Your task to perform on an android device: Show the shopping cart on costco.com. Search for duracell triple a on costco.com, select the first entry, add it to the cart, then select checkout. Image 0: 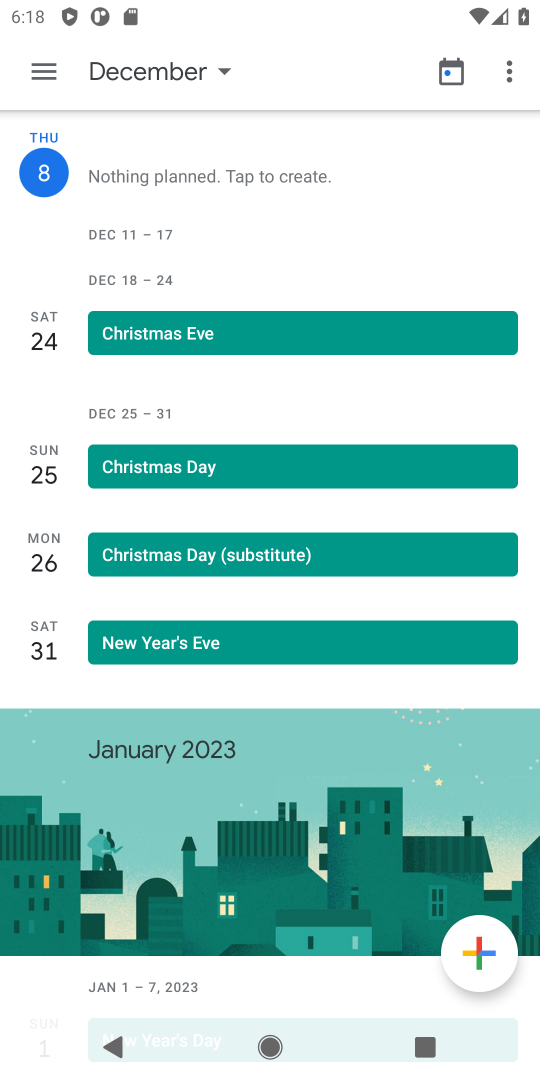
Step 0: press home button
Your task to perform on an android device: Show the shopping cart on costco.com. Search for duracell triple a on costco.com, select the first entry, add it to the cart, then select checkout. Image 1: 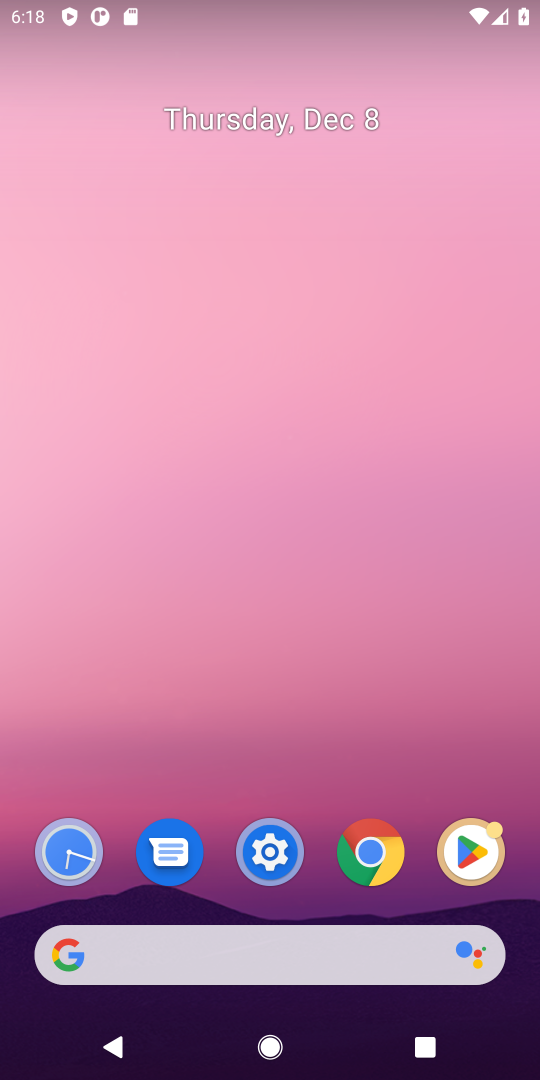
Step 1: click (219, 965)
Your task to perform on an android device: Show the shopping cart on costco.com. Search for duracell triple a on costco.com, select the first entry, add it to the cart, then select checkout. Image 2: 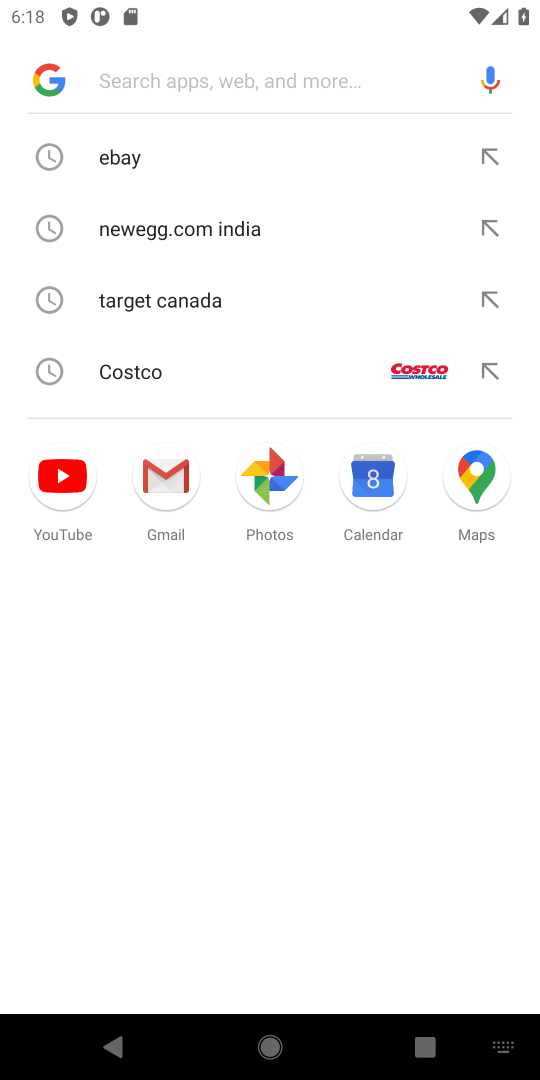
Step 2: type "costco.com"
Your task to perform on an android device: Show the shopping cart on costco.com. Search for duracell triple a on costco.com, select the first entry, add it to the cart, then select checkout. Image 3: 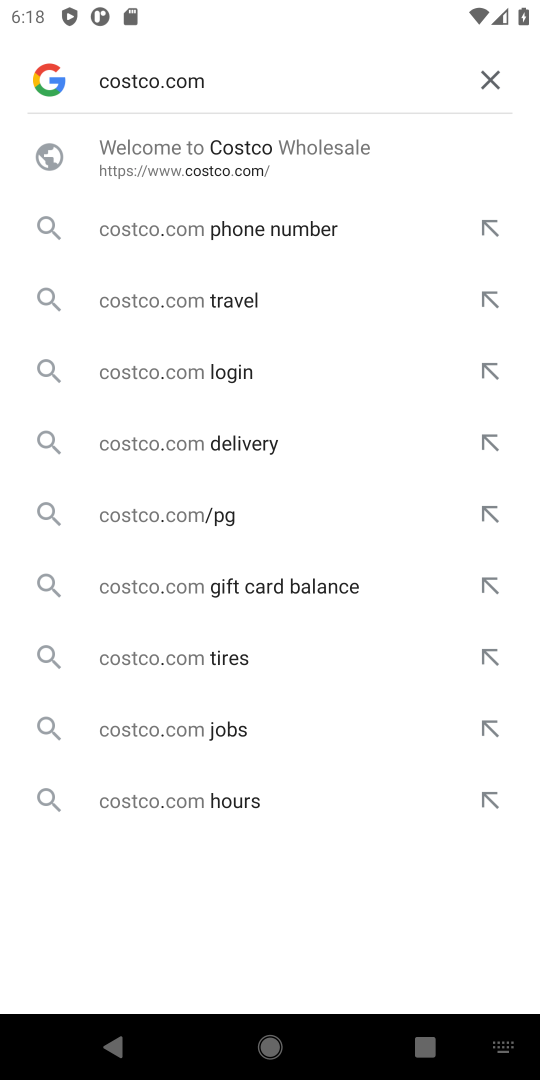
Step 3: click (195, 150)
Your task to perform on an android device: Show the shopping cart on costco.com. Search for duracell triple a on costco.com, select the first entry, add it to the cart, then select checkout. Image 4: 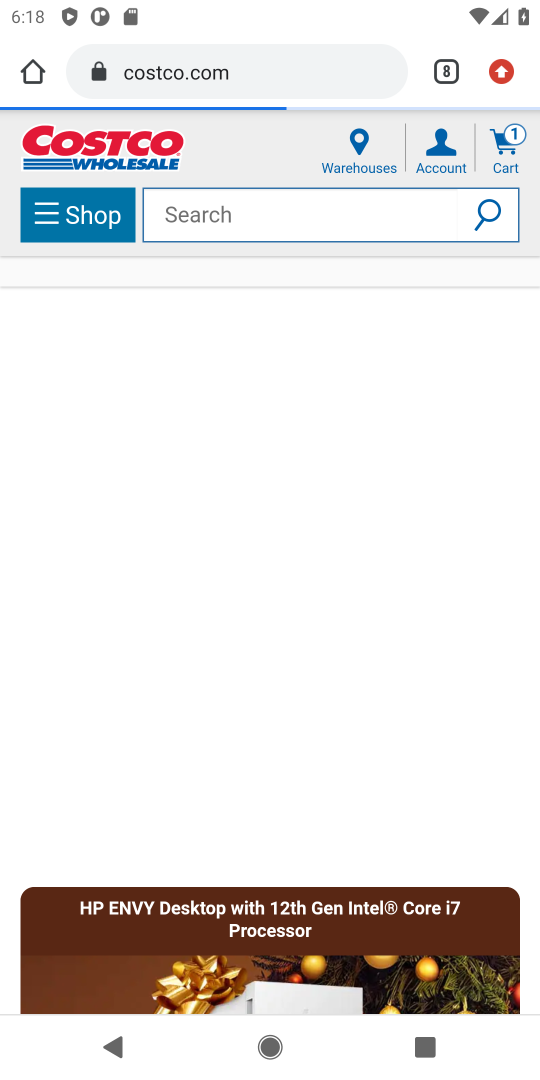
Step 4: click (185, 221)
Your task to perform on an android device: Show the shopping cart on costco.com. Search for duracell triple a on costco.com, select the first entry, add it to the cart, then select checkout. Image 5: 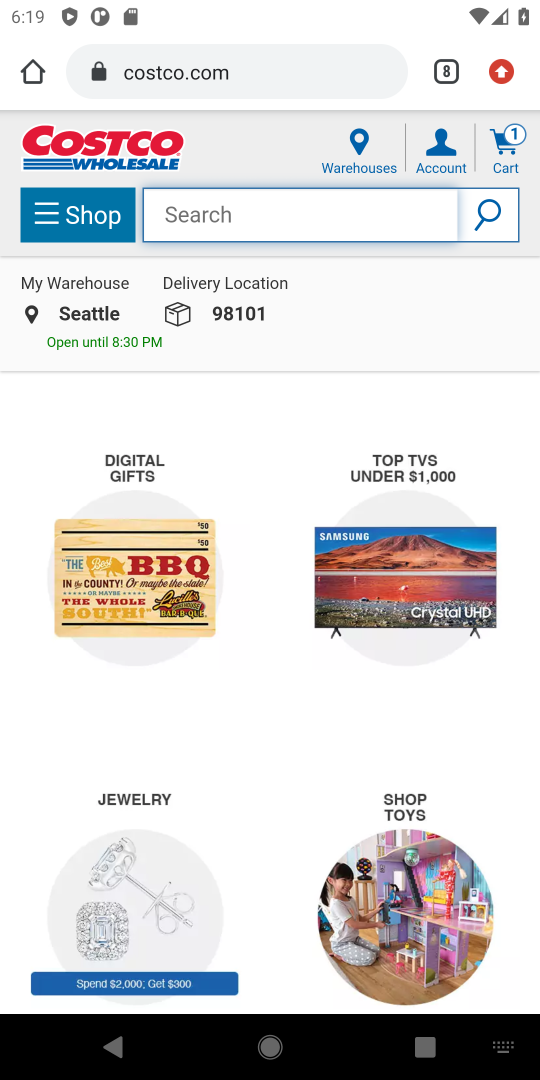
Step 5: type "duracell"
Your task to perform on an android device: Show the shopping cart on costco.com. Search for duracell triple a on costco.com, select the first entry, add it to the cart, then select checkout. Image 6: 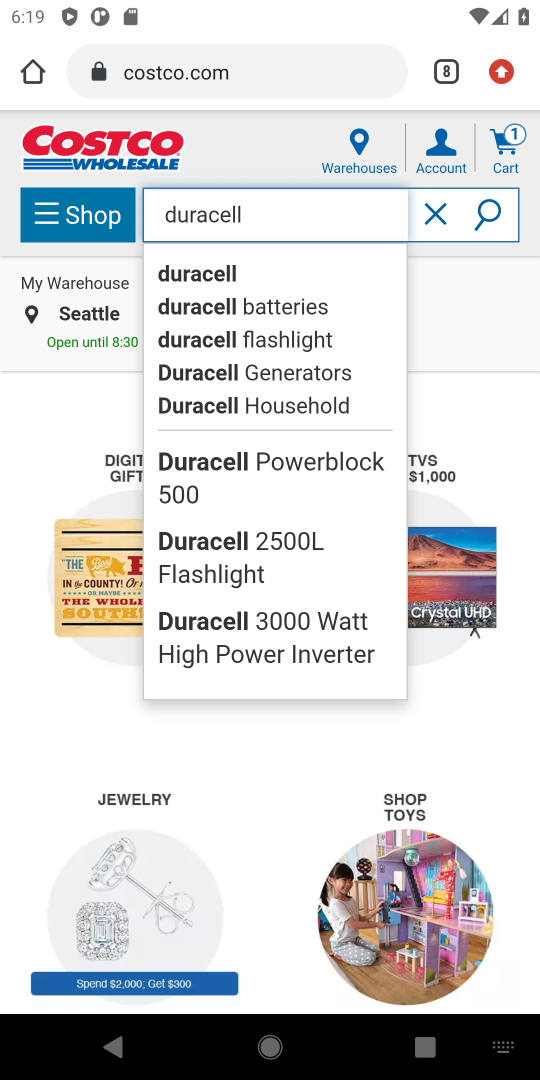
Step 6: click (265, 293)
Your task to perform on an android device: Show the shopping cart on costco.com. Search for duracell triple a on costco.com, select the first entry, add it to the cart, then select checkout. Image 7: 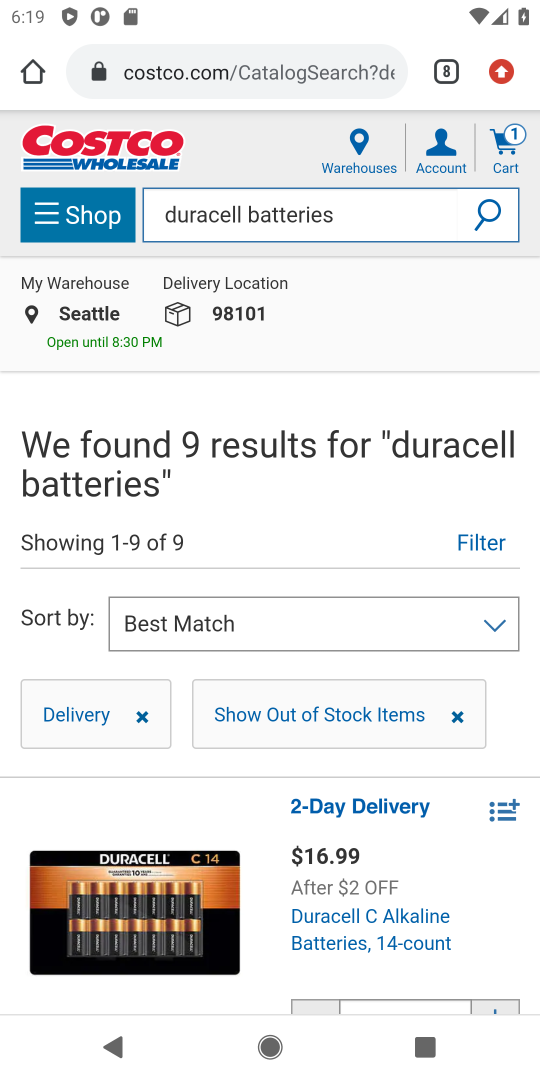
Step 7: drag from (288, 895) to (236, 303)
Your task to perform on an android device: Show the shopping cart on costco.com. Search for duracell triple a on costco.com, select the first entry, add it to the cart, then select checkout. Image 8: 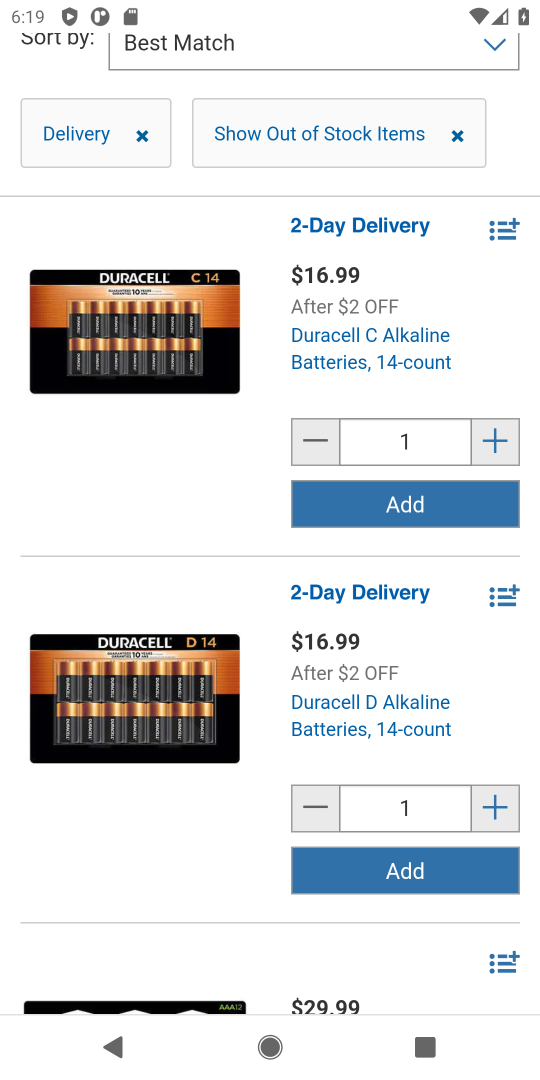
Step 8: click (400, 514)
Your task to perform on an android device: Show the shopping cart on costco.com. Search for duracell triple a on costco.com, select the first entry, add it to the cart, then select checkout. Image 9: 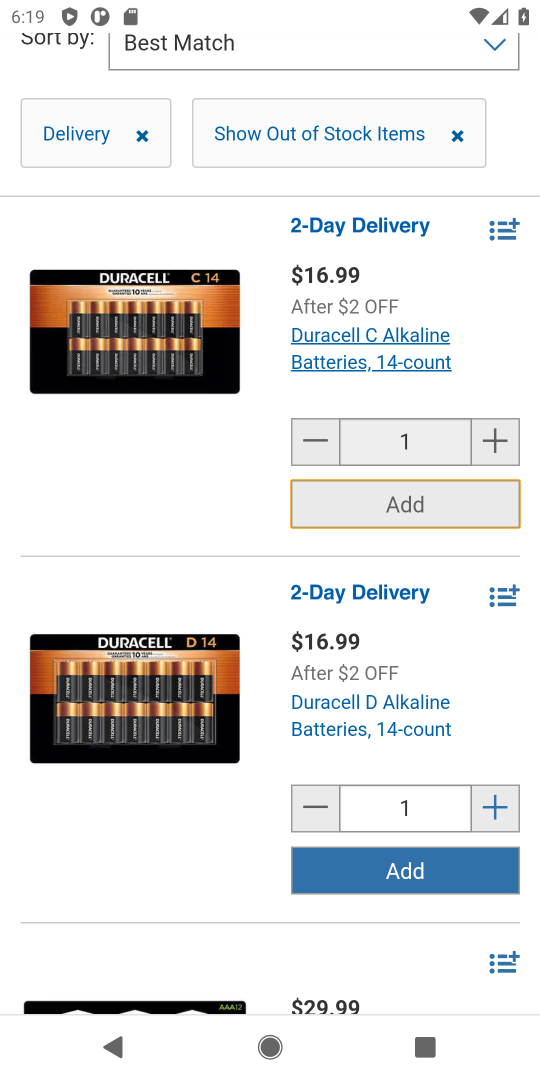
Step 9: task complete